Your task to perform on an android device: toggle translation in the chrome app Image 0: 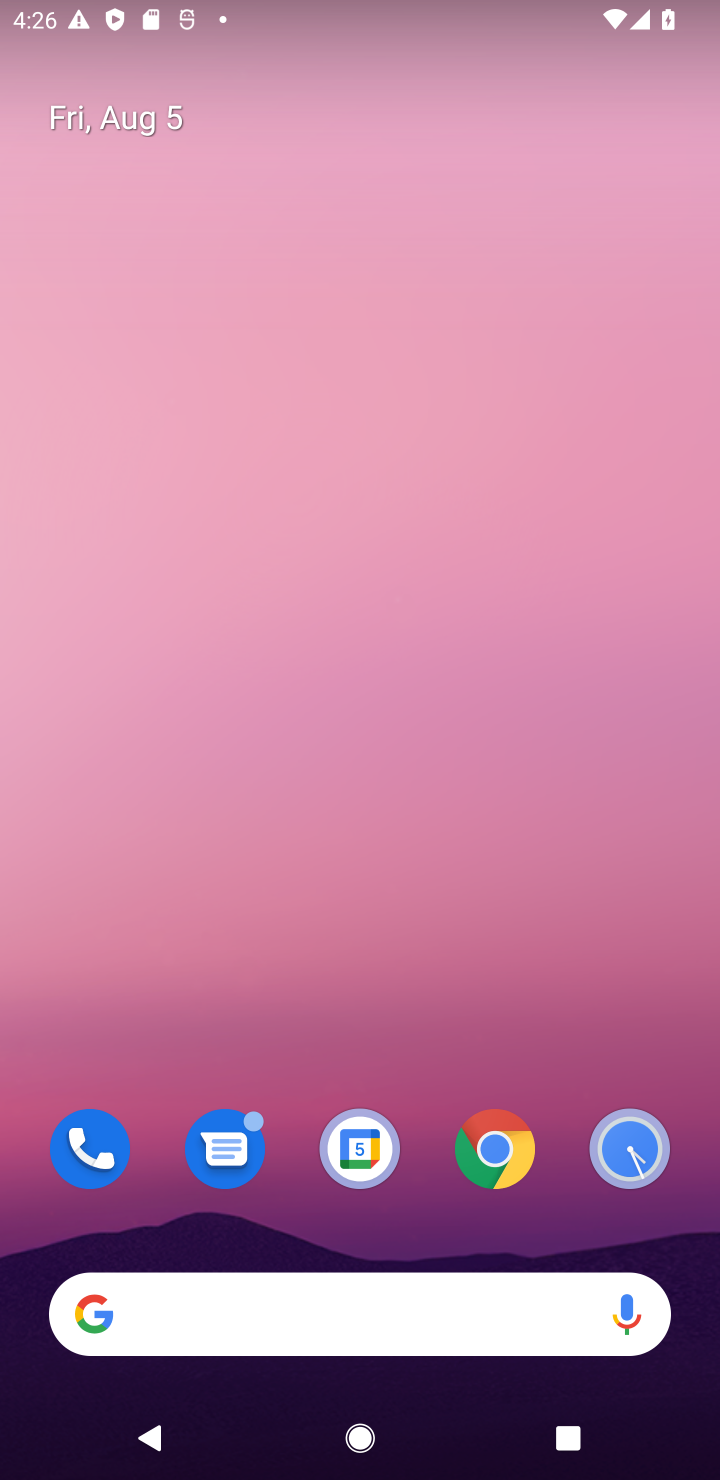
Step 0: click (501, 1119)
Your task to perform on an android device: toggle translation in the chrome app Image 1: 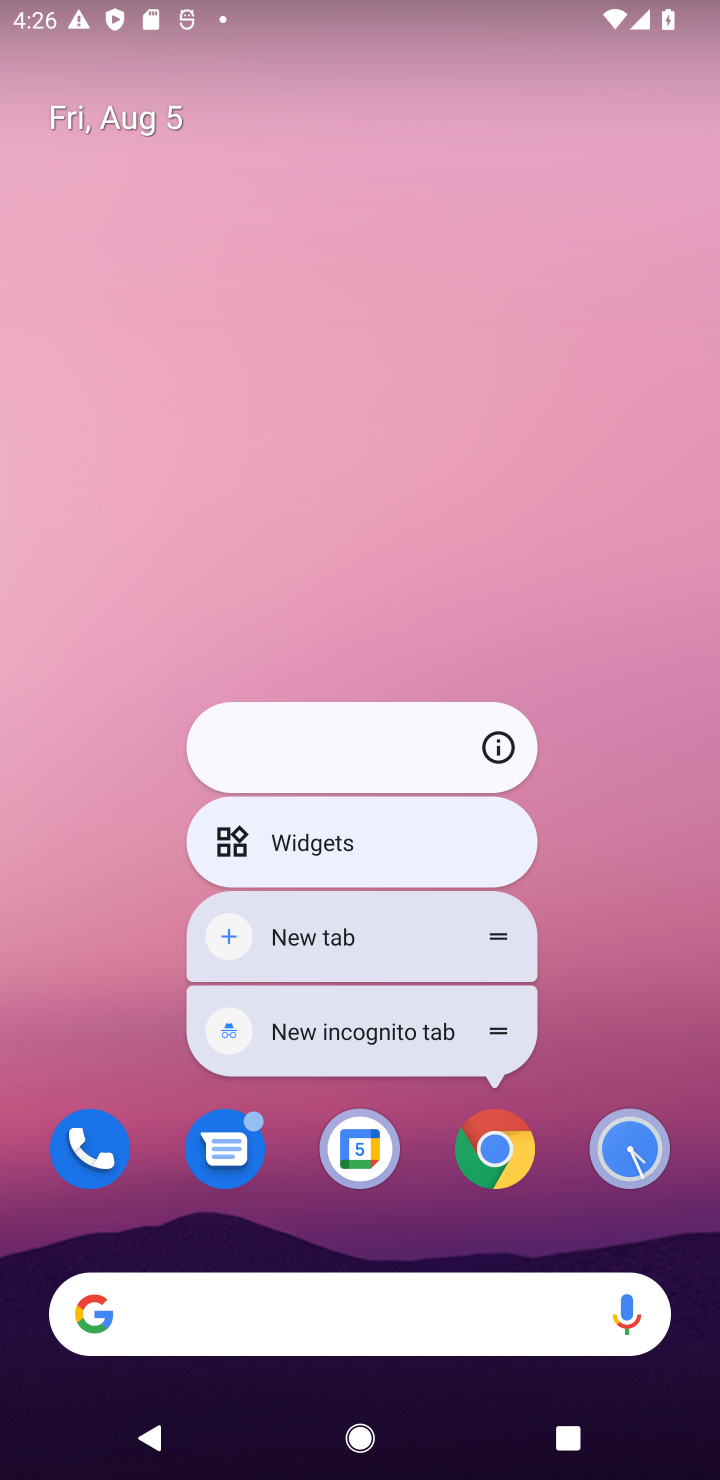
Step 1: click (509, 1153)
Your task to perform on an android device: toggle translation in the chrome app Image 2: 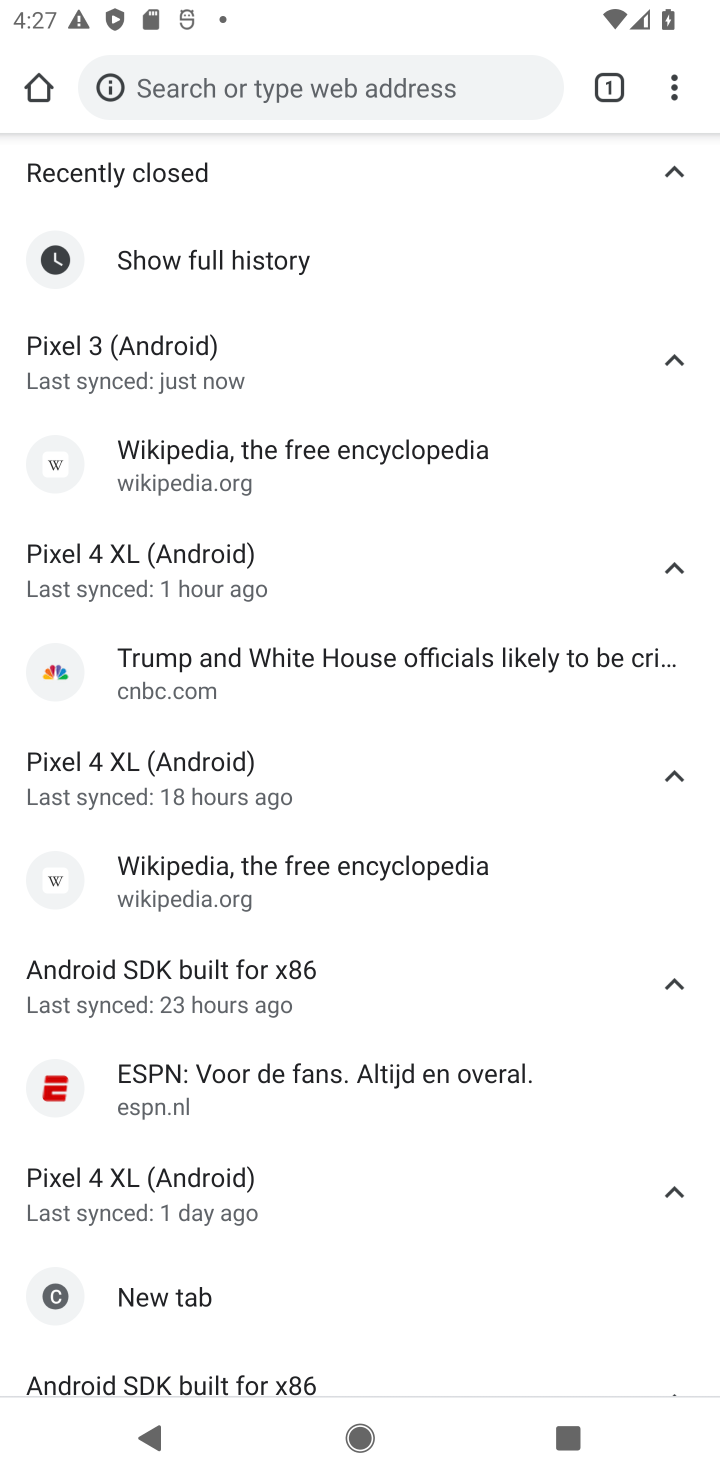
Step 2: drag from (659, 78) to (415, 861)
Your task to perform on an android device: toggle translation in the chrome app Image 3: 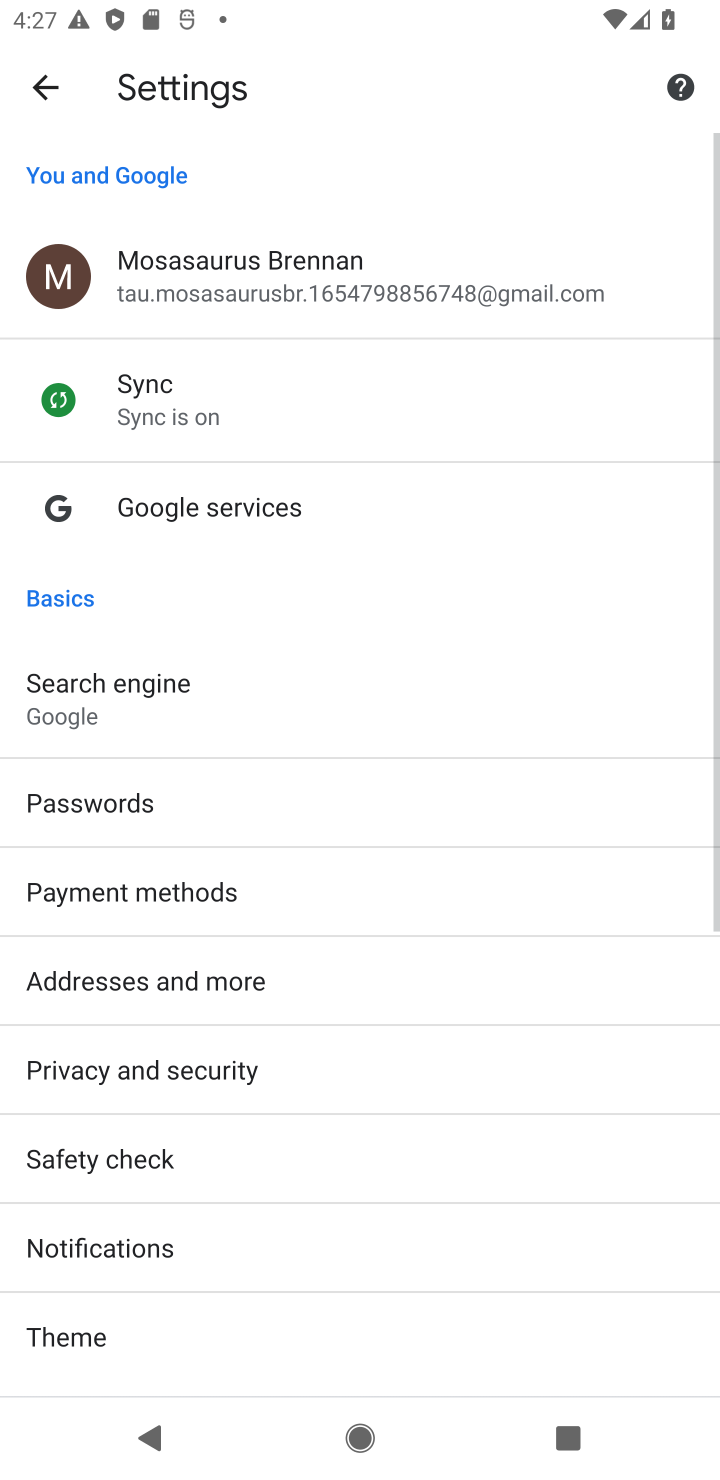
Step 3: drag from (269, 1252) to (482, 188)
Your task to perform on an android device: toggle translation in the chrome app Image 4: 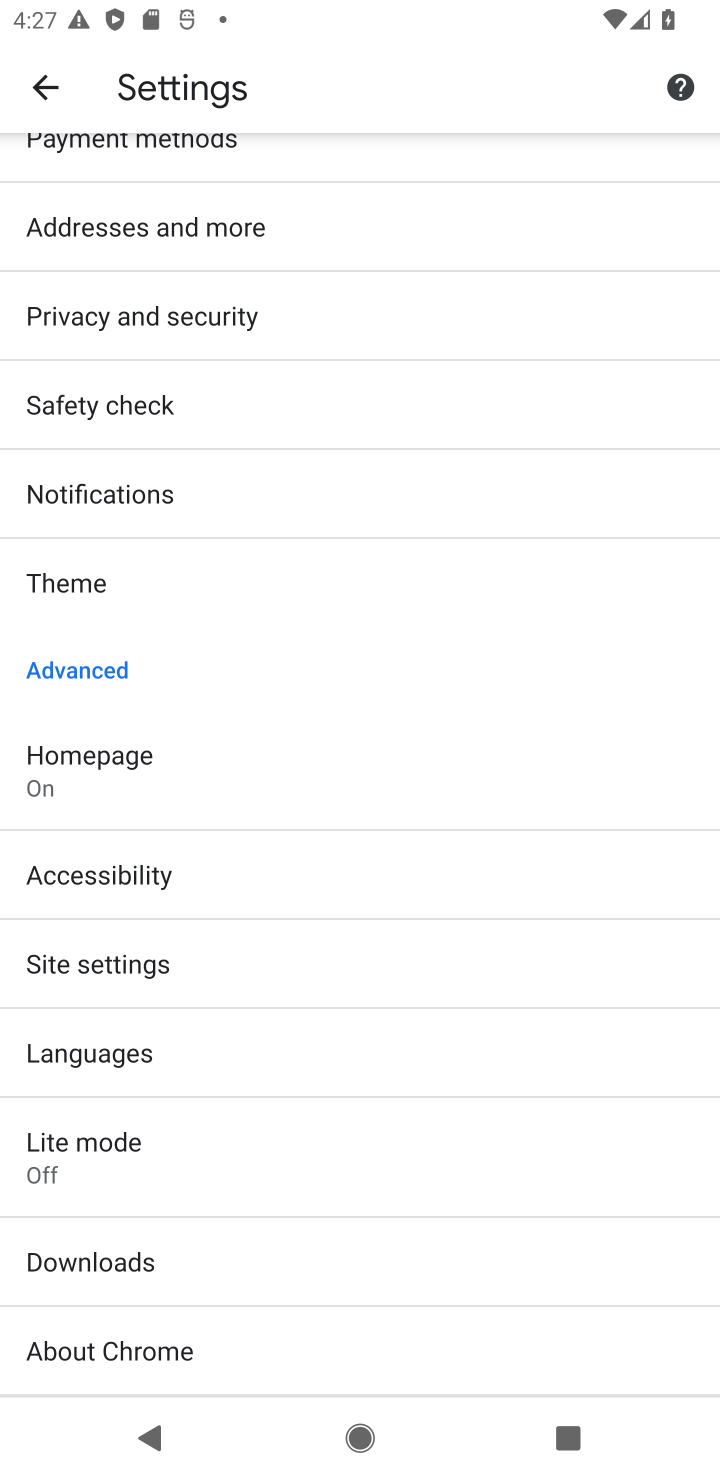
Step 4: click (133, 1052)
Your task to perform on an android device: toggle translation in the chrome app Image 5: 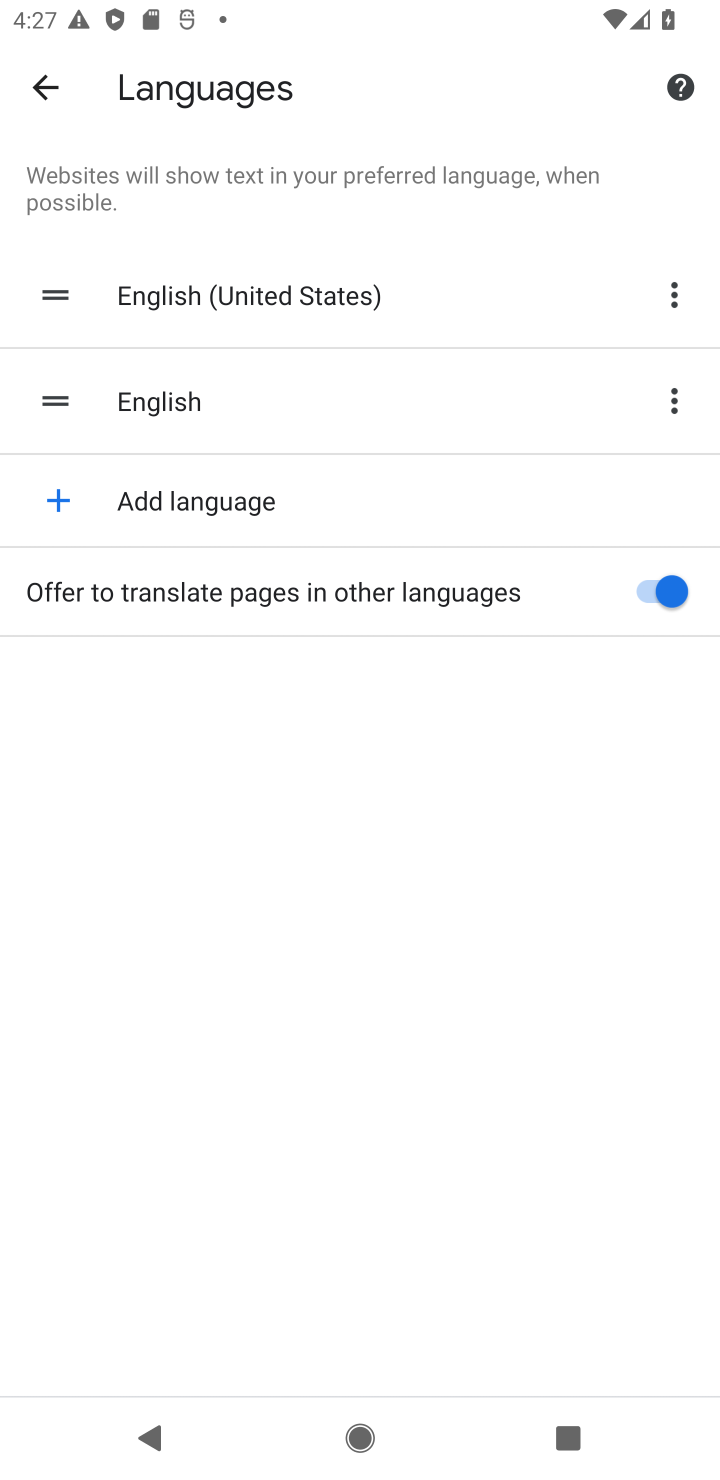
Step 5: click (670, 591)
Your task to perform on an android device: toggle translation in the chrome app Image 6: 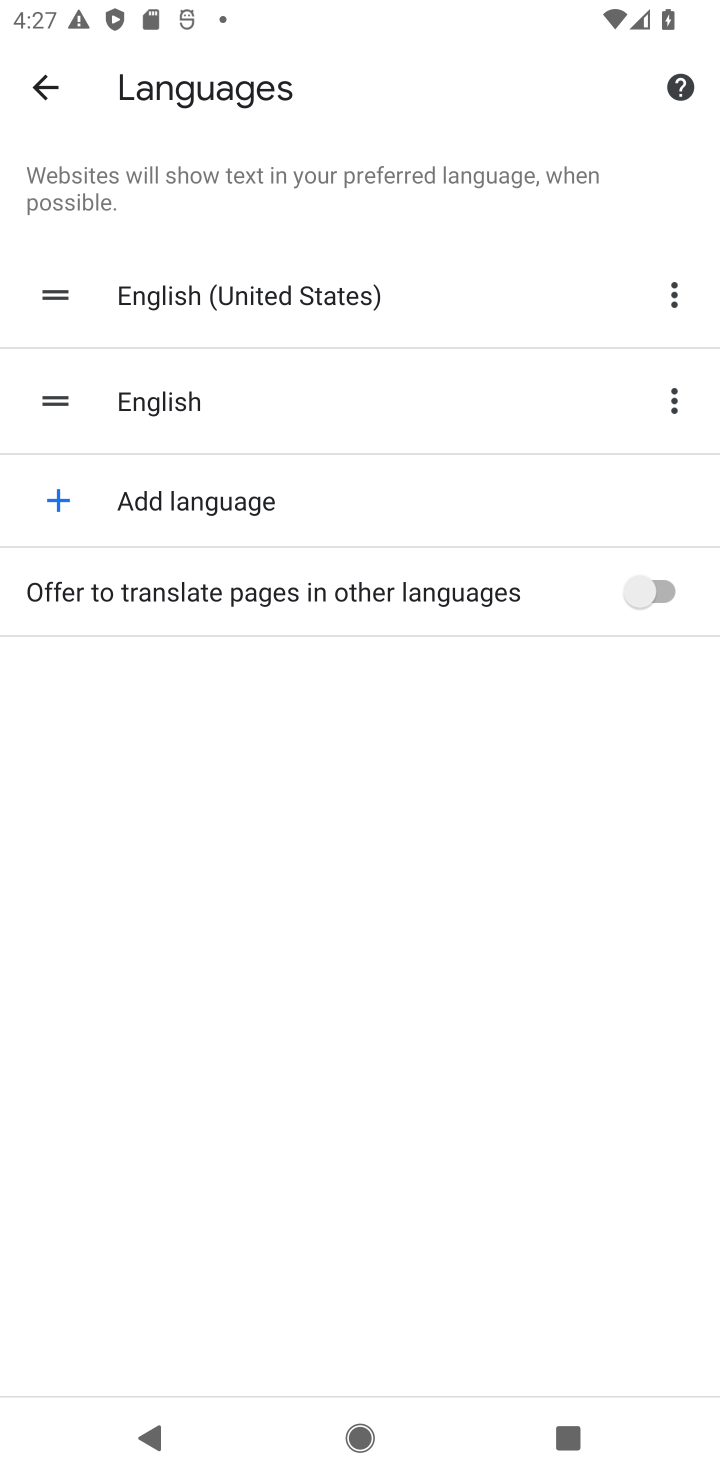
Step 6: task complete